Your task to perform on an android device: What's the weather going to be tomorrow? Image 0: 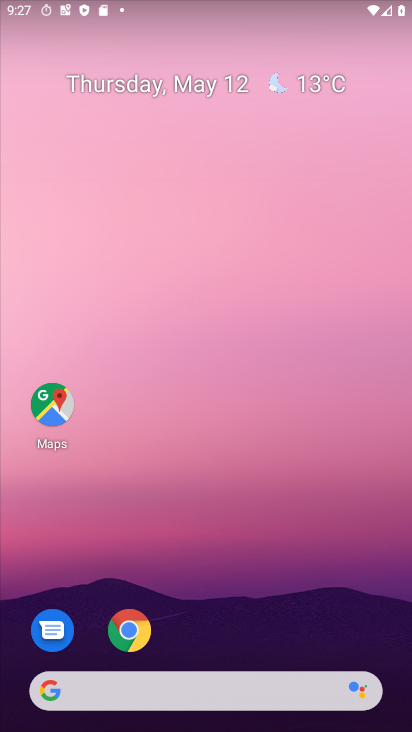
Step 0: click (319, 80)
Your task to perform on an android device: What's the weather going to be tomorrow? Image 1: 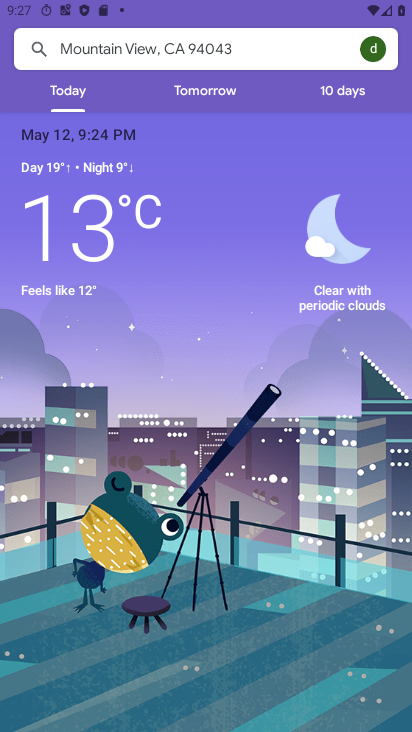
Step 1: click (220, 92)
Your task to perform on an android device: What's the weather going to be tomorrow? Image 2: 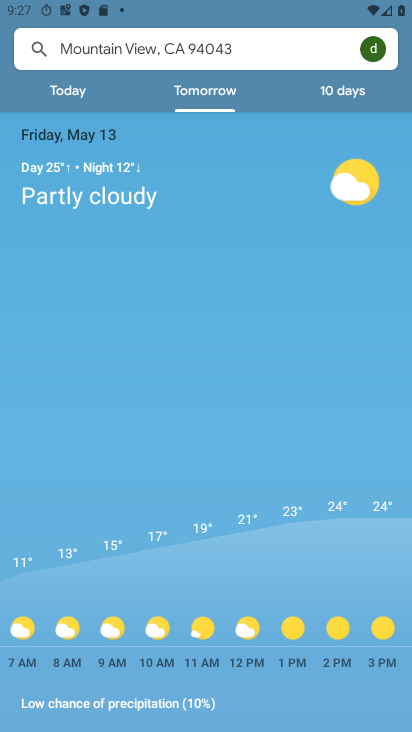
Step 2: task complete